Your task to perform on an android device: turn on improve location accuracy Image 0: 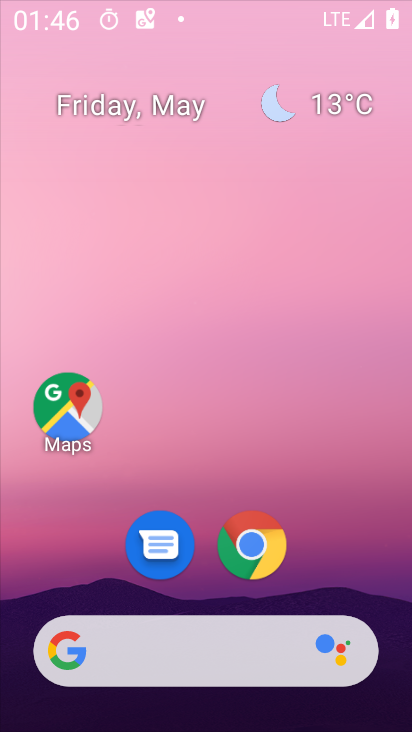
Step 0: drag from (300, 599) to (301, 145)
Your task to perform on an android device: turn on improve location accuracy Image 1: 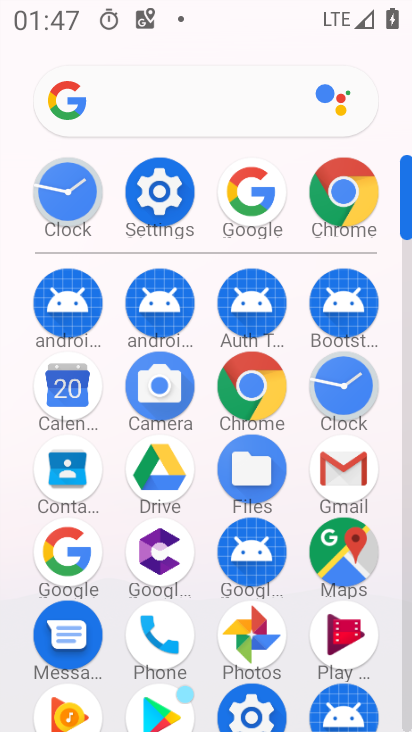
Step 1: click (236, 711)
Your task to perform on an android device: turn on improve location accuracy Image 2: 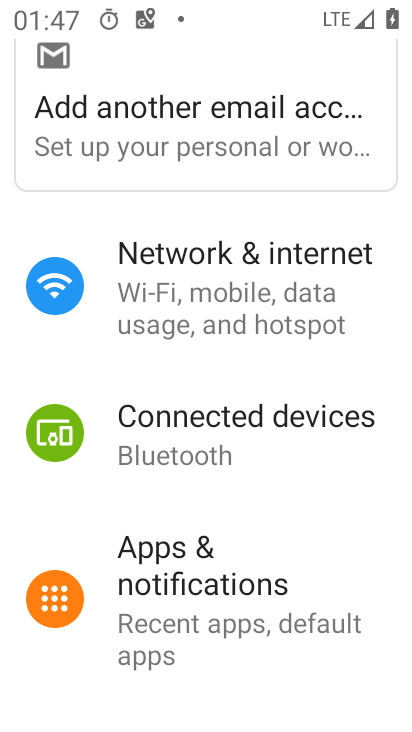
Step 2: drag from (212, 531) to (216, 274)
Your task to perform on an android device: turn on improve location accuracy Image 3: 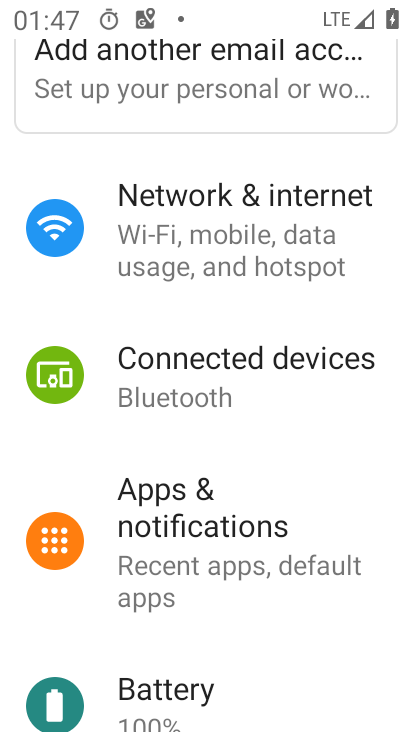
Step 3: drag from (296, 636) to (262, 310)
Your task to perform on an android device: turn on improve location accuracy Image 4: 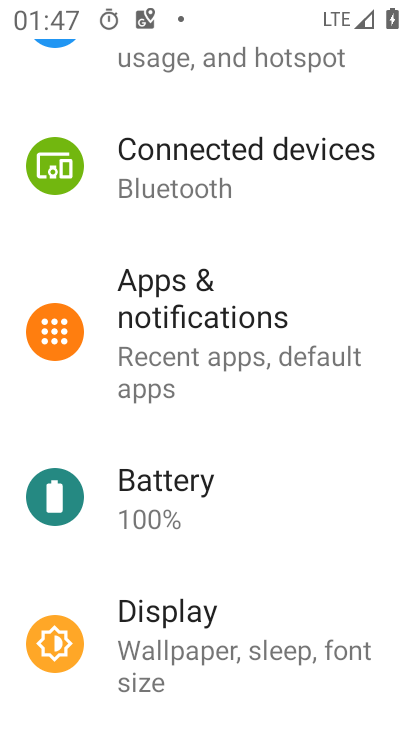
Step 4: drag from (242, 676) to (164, 160)
Your task to perform on an android device: turn on improve location accuracy Image 5: 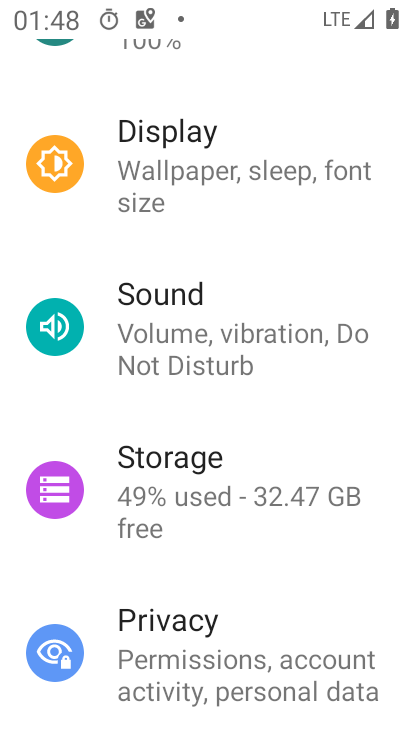
Step 5: click (194, 542)
Your task to perform on an android device: turn on improve location accuracy Image 6: 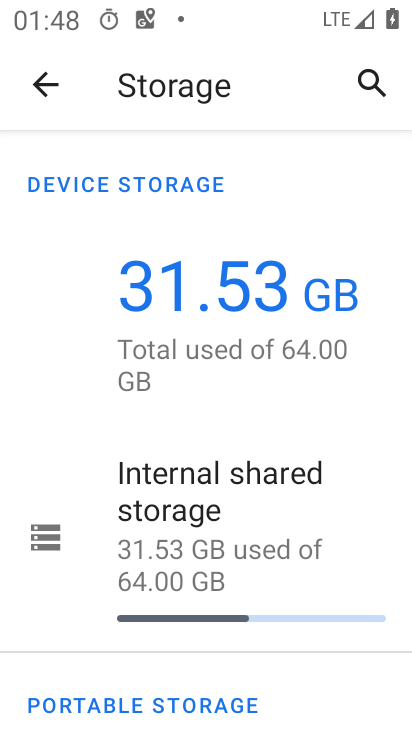
Step 6: click (55, 88)
Your task to perform on an android device: turn on improve location accuracy Image 7: 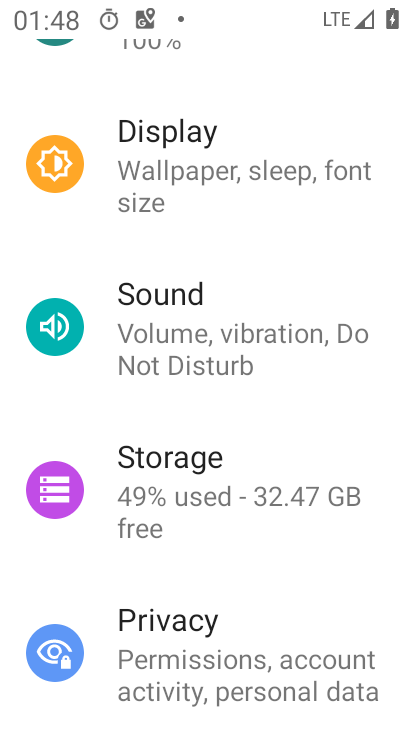
Step 7: drag from (234, 236) to (240, 500)
Your task to perform on an android device: turn on improve location accuracy Image 8: 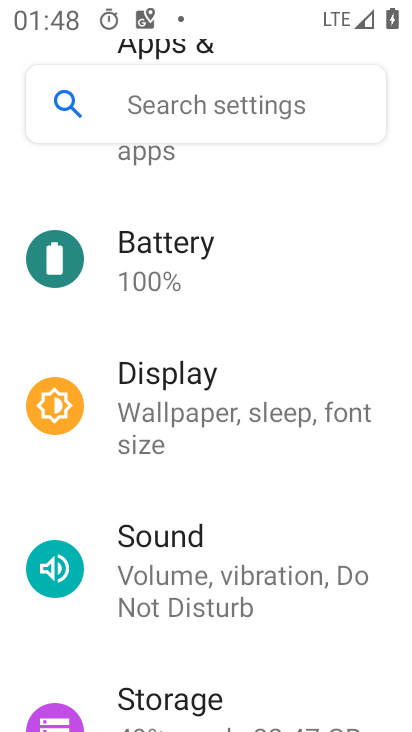
Step 8: drag from (233, 592) to (229, 317)
Your task to perform on an android device: turn on improve location accuracy Image 9: 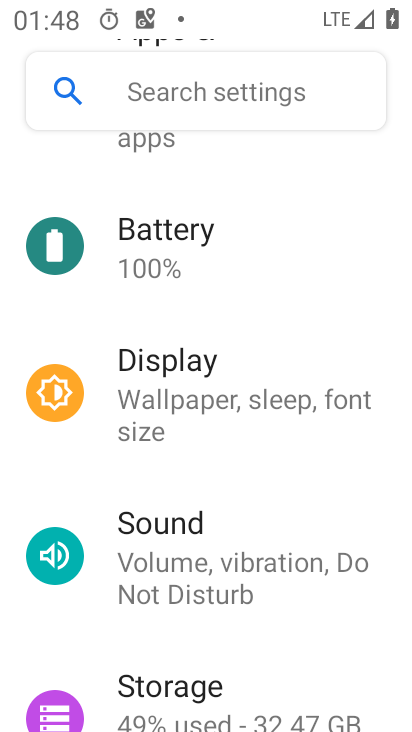
Step 9: drag from (251, 527) to (222, 173)
Your task to perform on an android device: turn on improve location accuracy Image 10: 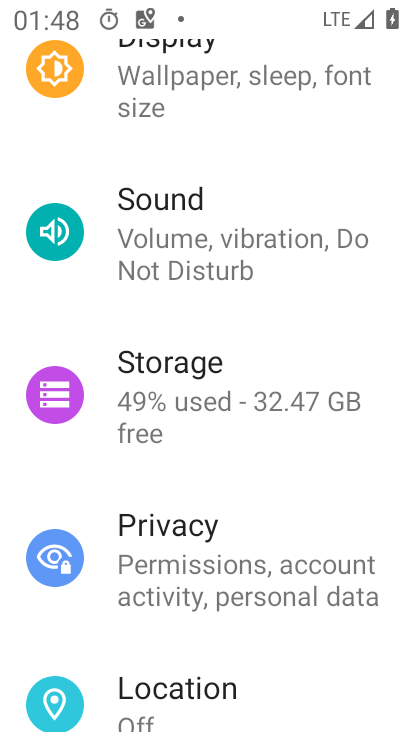
Step 10: click (205, 218)
Your task to perform on an android device: turn on improve location accuracy Image 11: 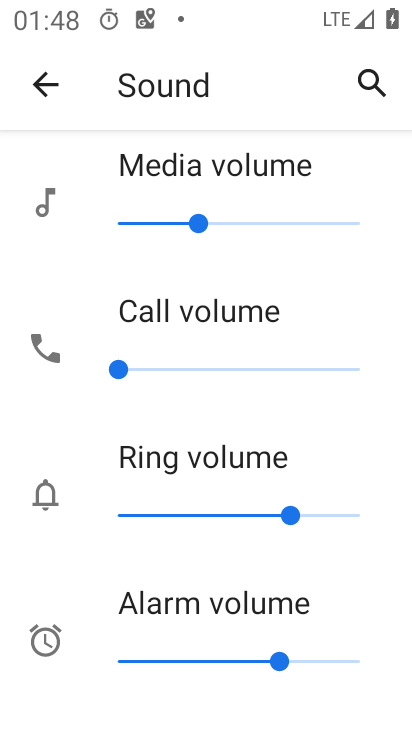
Step 11: click (52, 79)
Your task to perform on an android device: turn on improve location accuracy Image 12: 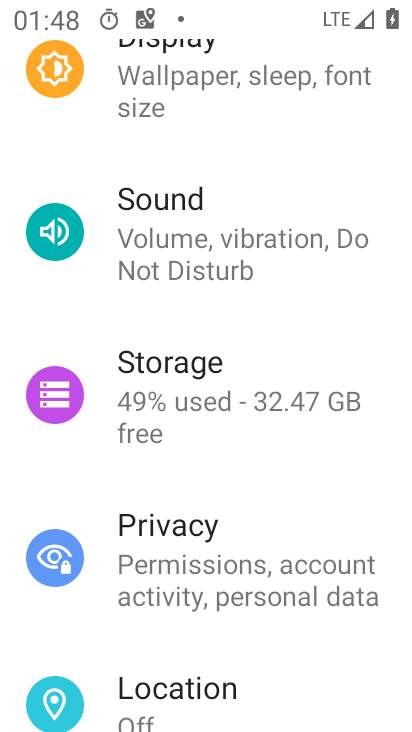
Step 12: click (178, 700)
Your task to perform on an android device: turn on improve location accuracy Image 13: 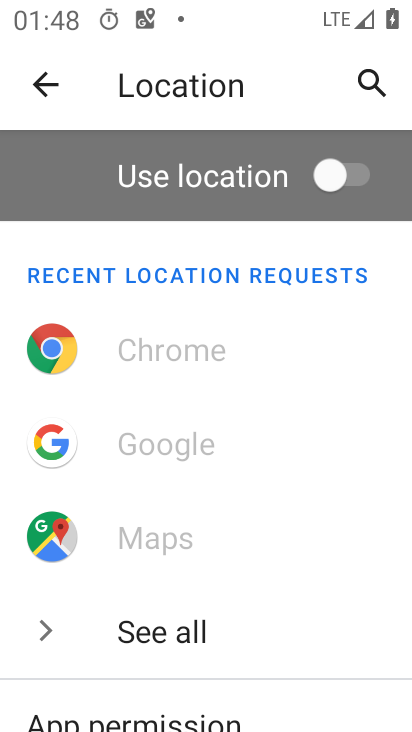
Step 13: drag from (198, 715) to (185, 282)
Your task to perform on an android device: turn on improve location accuracy Image 14: 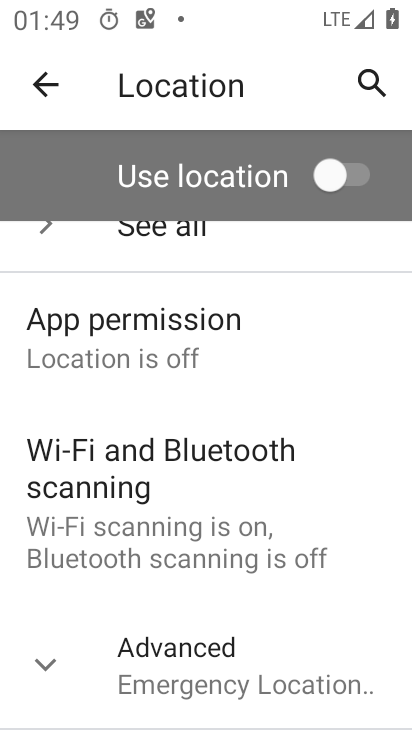
Step 14: click (172, 685)
Your task to perform on an android device: turn on improve location accuracy Image 15: 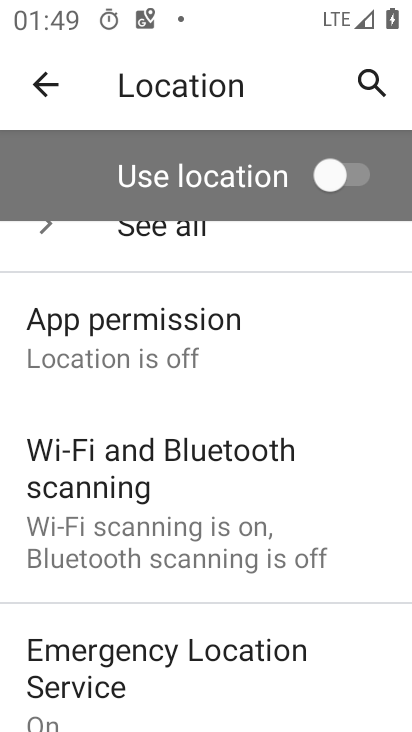
Step 15: drag from (167, 464) to (163, 386)
Your task to perform on an android device: turn on improve location accuracy Image 16: 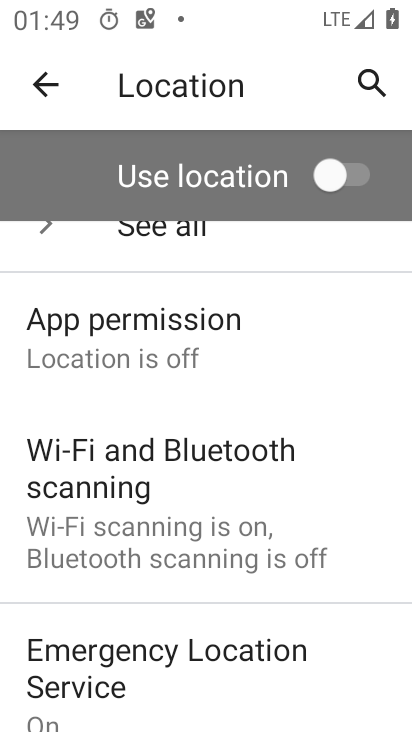
Step 16: click (246, 432)
Your task to perform on an android device: turn on improve location accuracy Image 17: 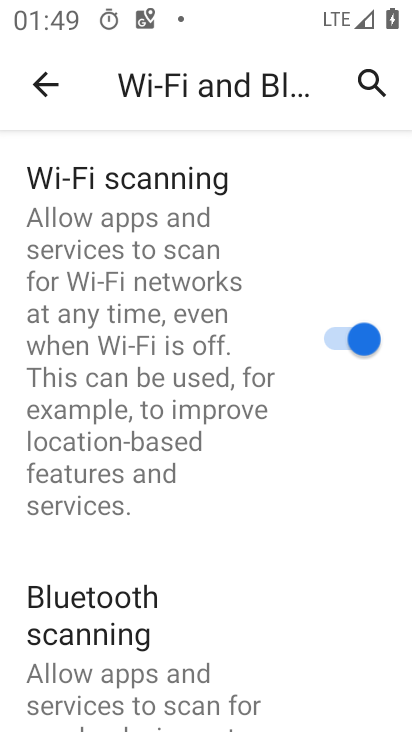
Step 17: click (41, 84)
Your task to perform on an android device: turn on improve location accuracy Image 18: 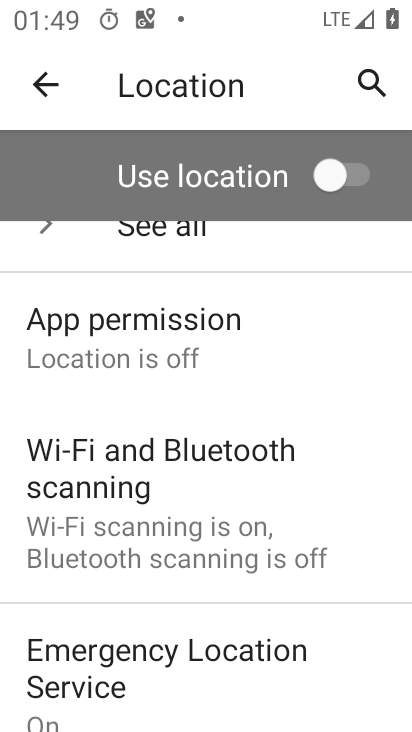
Step 18: drag from (185, 655) to (156, 445)
Your task to perform on an android device: turn on improve location accuracy Image 19: 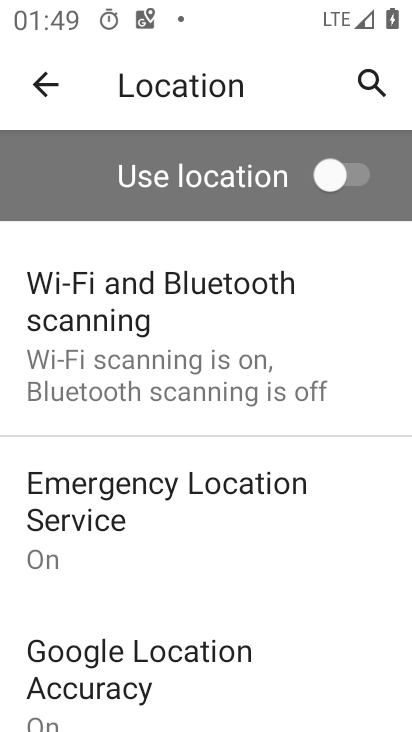
Step 19: drag from (206, 709) to (175, 531)
Your task to perform on an android device: turn on improve location accuracy Image 20: 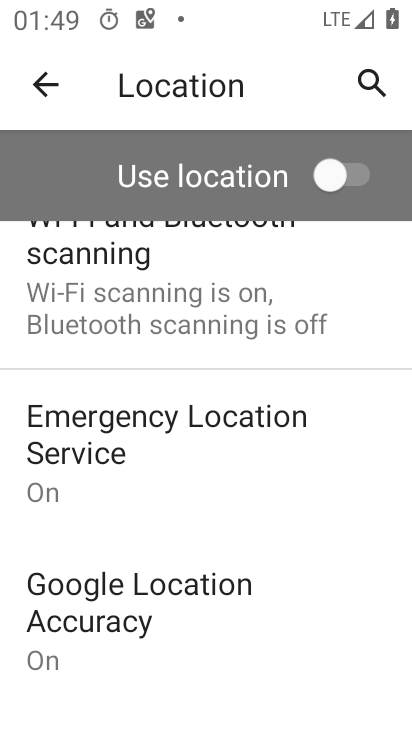
Step 20: click (115, 645)
Your task to perform on an android device: turn on improve location accuracy Image 21: 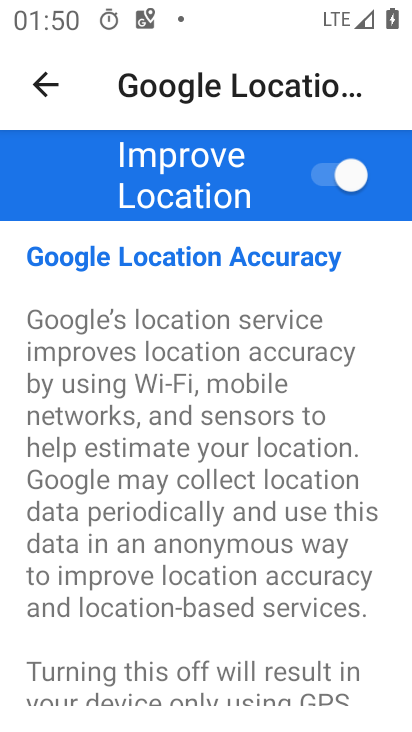
Step 21: task complete